Your task to perform on an android device: turn off javascript in the chrome app Image 0: 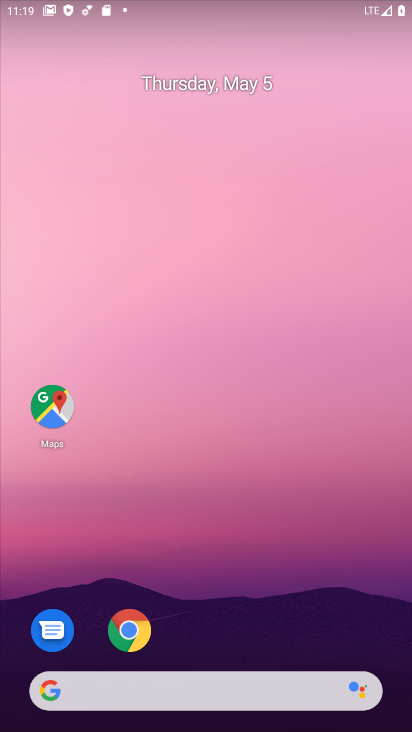
Step 0: press home button
Your task to perform on an android device: turn off javascript in the chrome app Image 1: 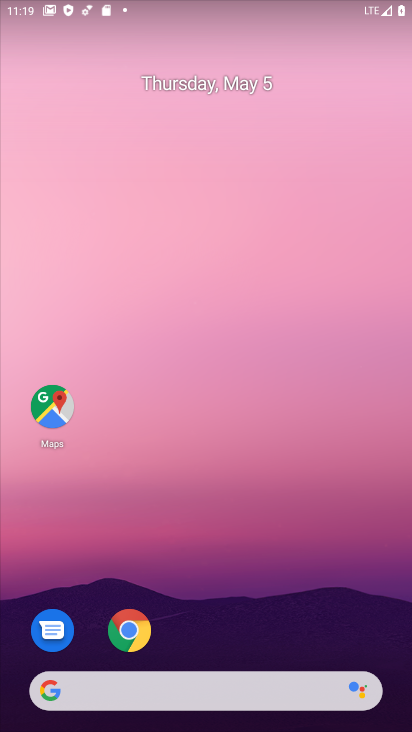
Step 1: click (125, 628)
Your task to perform on an android device: turn off javascript in the chrome app Image 2: 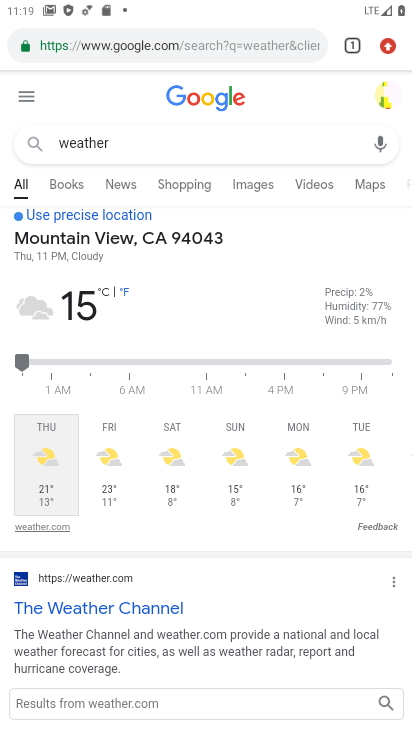
Step 2: drag from (401, 42) to (235, 559)
Your task to perform on an android device: turn off javascript in the chrome app Image 3: 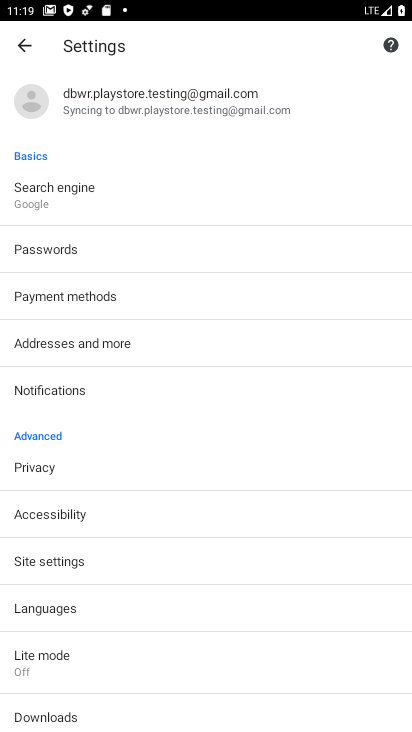
Step 3: click (94, 566)
Your task to perform on an android device: turn off javascript in the chrome app Image 4: 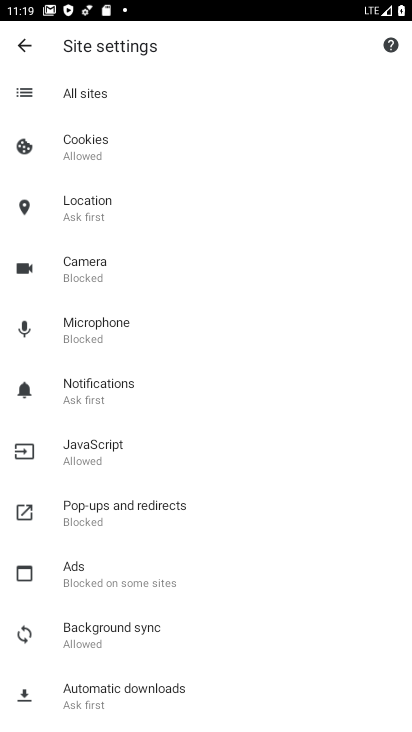
Step 4: click (100, 440)
Your task to perform on an android device: turn off javascript in the chrome app Image 5: 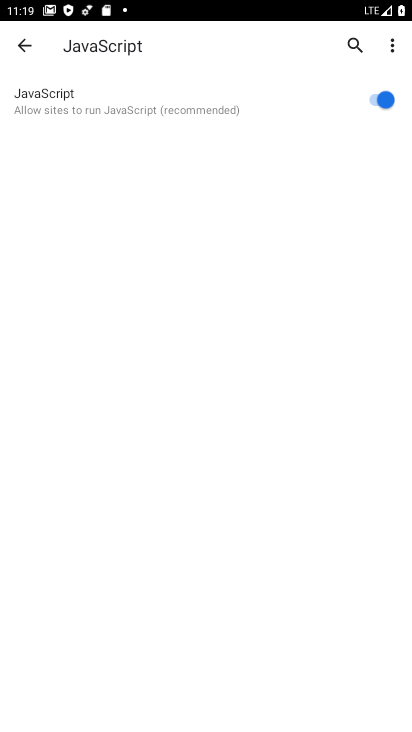
Step 5: click (371, 98)
Your task to perform on an android device: turn off javascript in the chrome app Image 6: 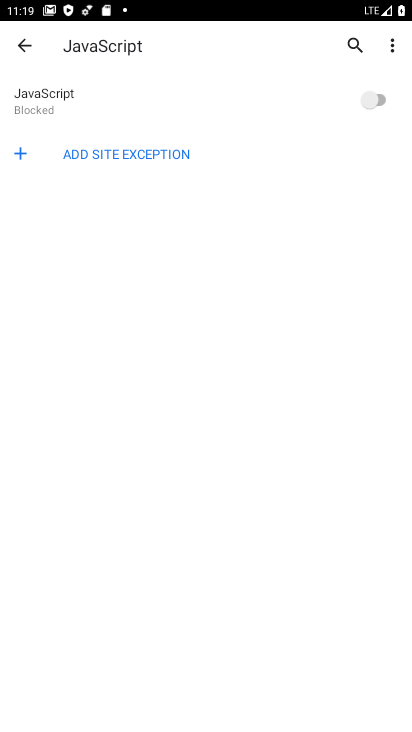
Step 6: task complete